Your task to perform on an android device: open the mobile data screen to see how much data has been used Image 0: 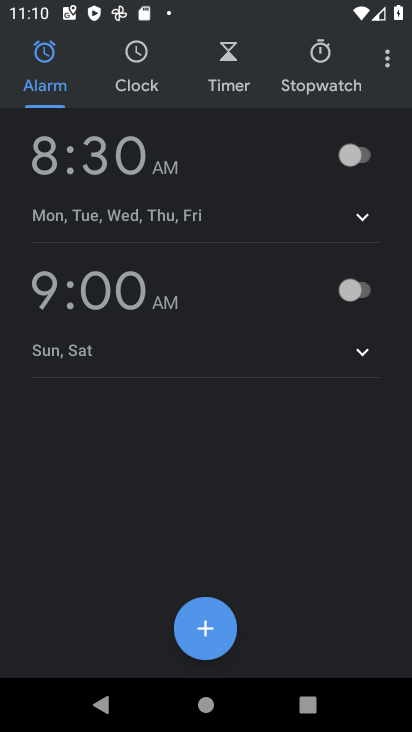
Step 0: press home button
Your task to perform on an android device: open the mobile data screen to see how much data has been used Image 1: 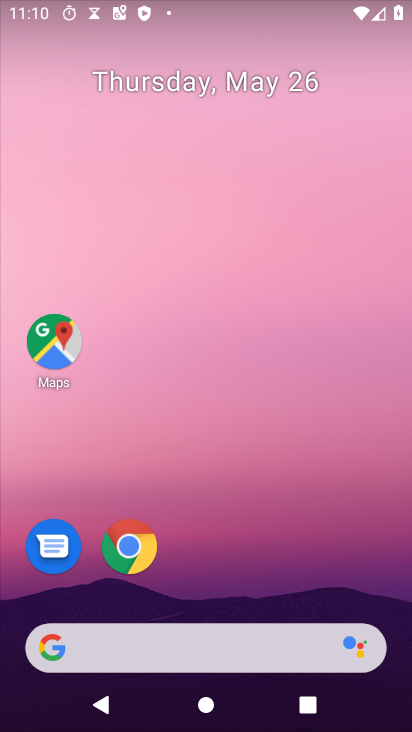
Step 1: drag from (330, 583) to (273, 169)
Your task to perform on an android device: open the mobile data screen to see how much data has been used Image 2: 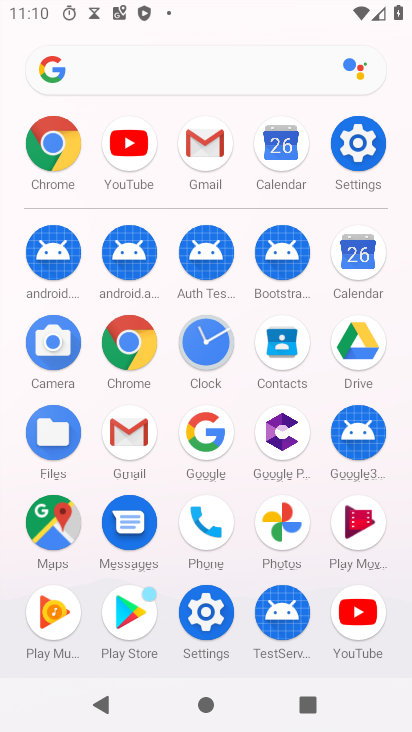
Step 2: click (204, 614)
Your task to perform on an android device: open the mobile data screen to see how much data has been used Image 3: 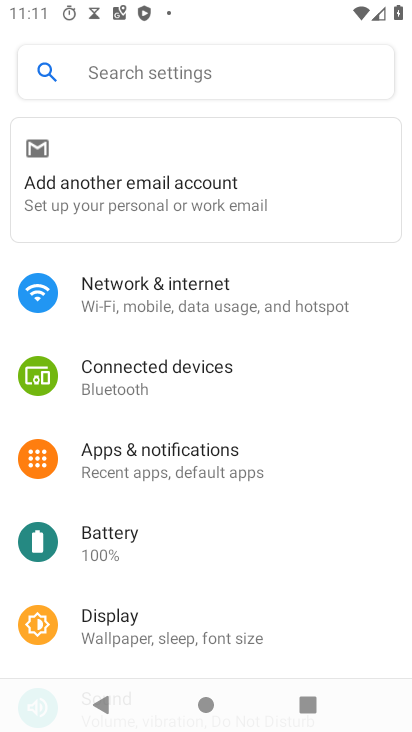
Step 3: click (252, 312)
Your task to perform on an android device: open the mobile data screen to see how much data has been used Image 4: 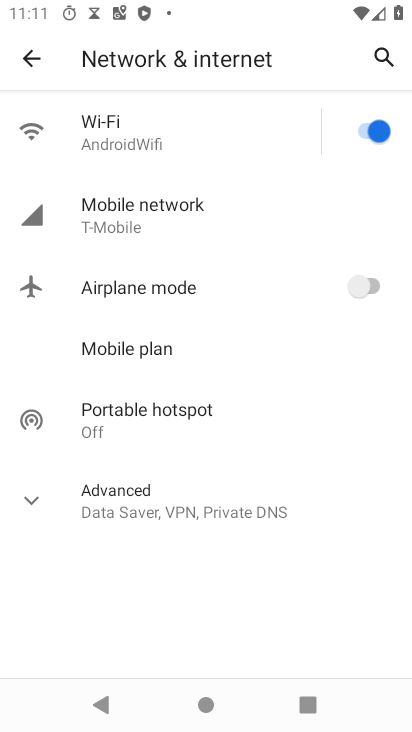
Step 4: click (189, 214)
Your task to perform on an android device: open the mobile data screen to see how much data has been used Image 5: 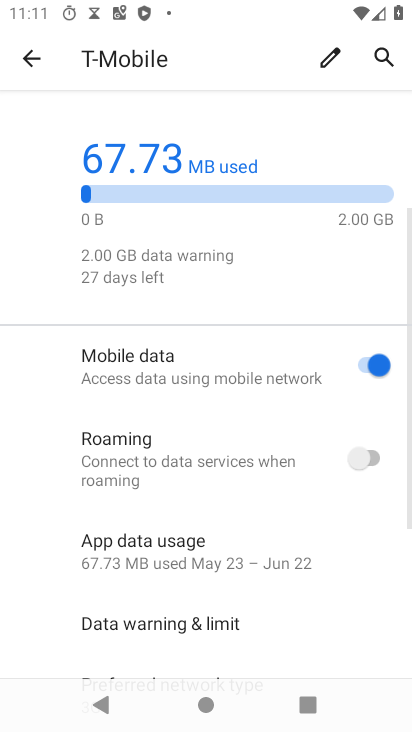
Step 5: task complete